Your task to perform on an android device: open a new tab in the chrome app Image 0: 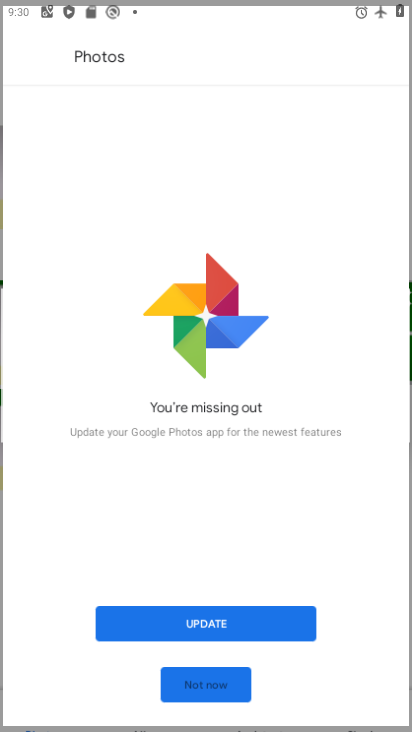
Step 0: press home button
Your task to perform on an android device: open a new tab in the chrome app Image 1: 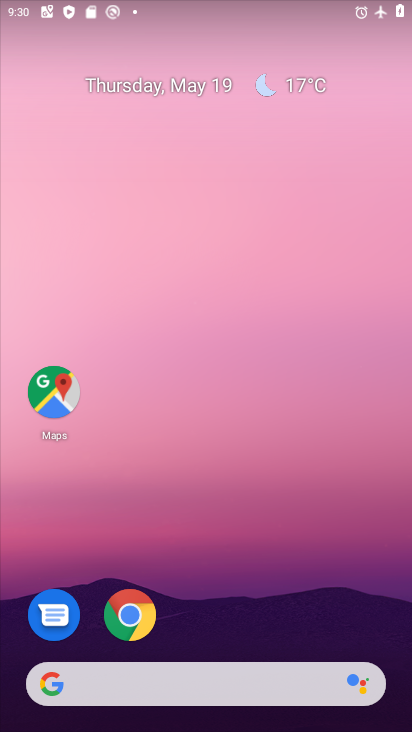
Step 1: click (120, 615)
Your task to perform on an android device: open a new tab in the chrome app Image 2: 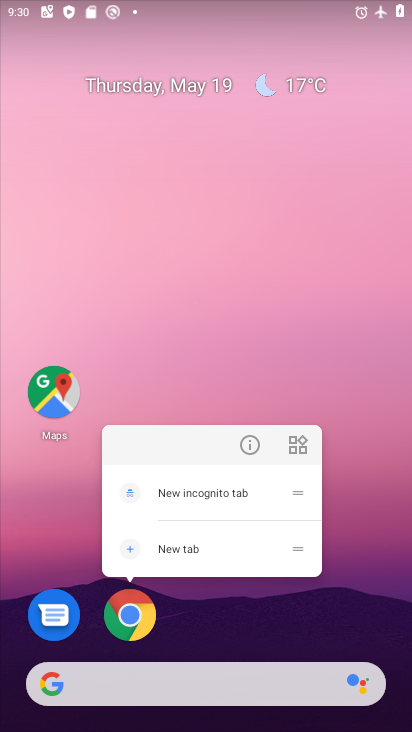
Step 2: click (114, 617)
Your task to perform on an android device: open a new tab in the chrome app Image 3: 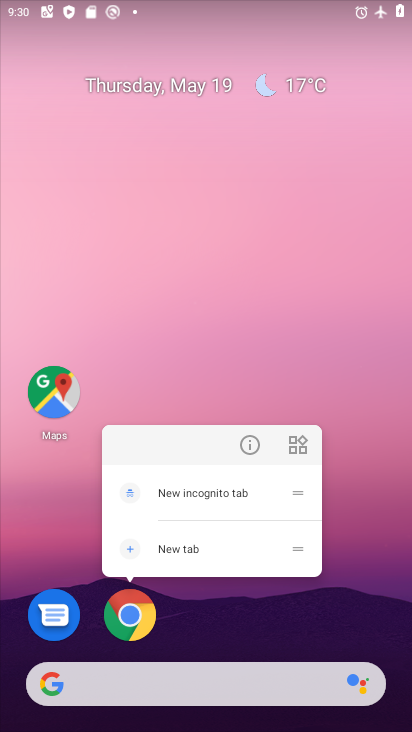
Step 3: click (125, 619)
Your task to perform on an android device: open a new tab in the chrome app Image 4: 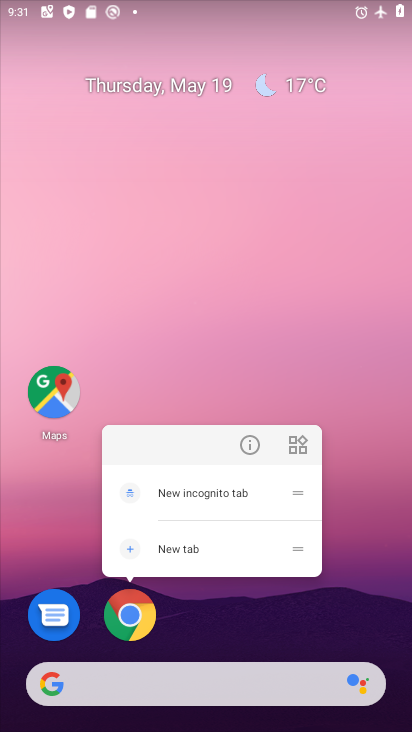
Step 4: click (125, 619)
Your task to perform on an android device: open a new tab in the chrome app Image 5: 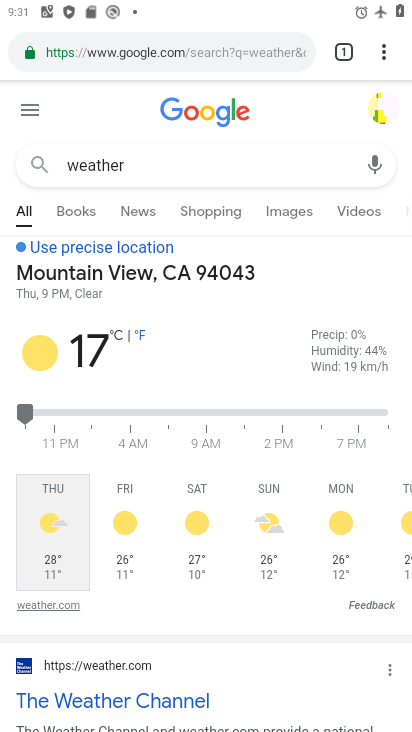
Step 5: drag from (333, 6) to (275, 659)
Your task to perform on an android device: open a new tab in the chrome app Image 6: 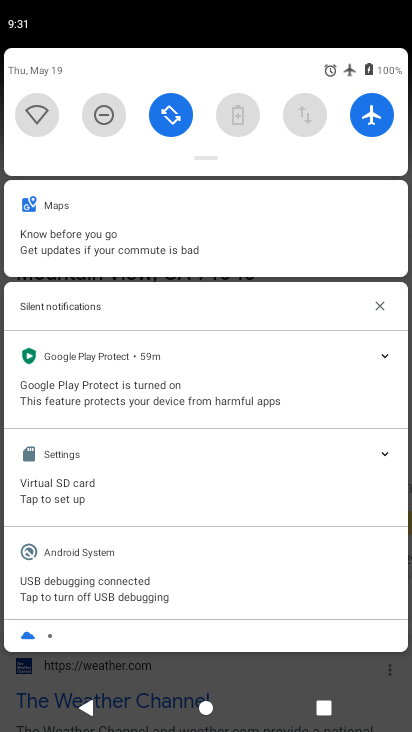
Step 6: click (365, 117)
Your task to perform on an android device: open a new tab in the chrome app Image 7: 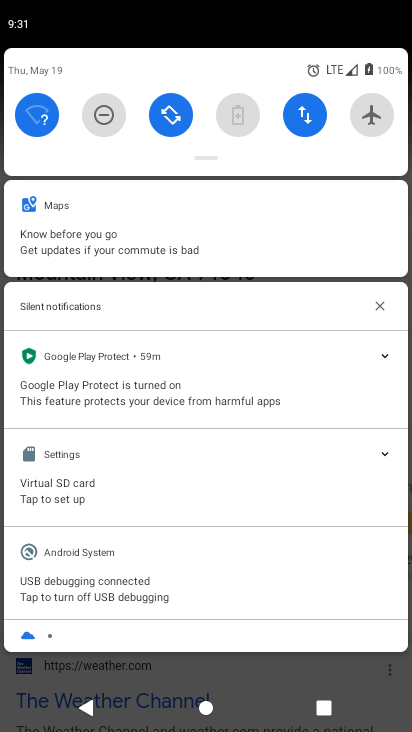
Step 7: task complete